Your task to perform on an android device: turn notification dots off Image 0: 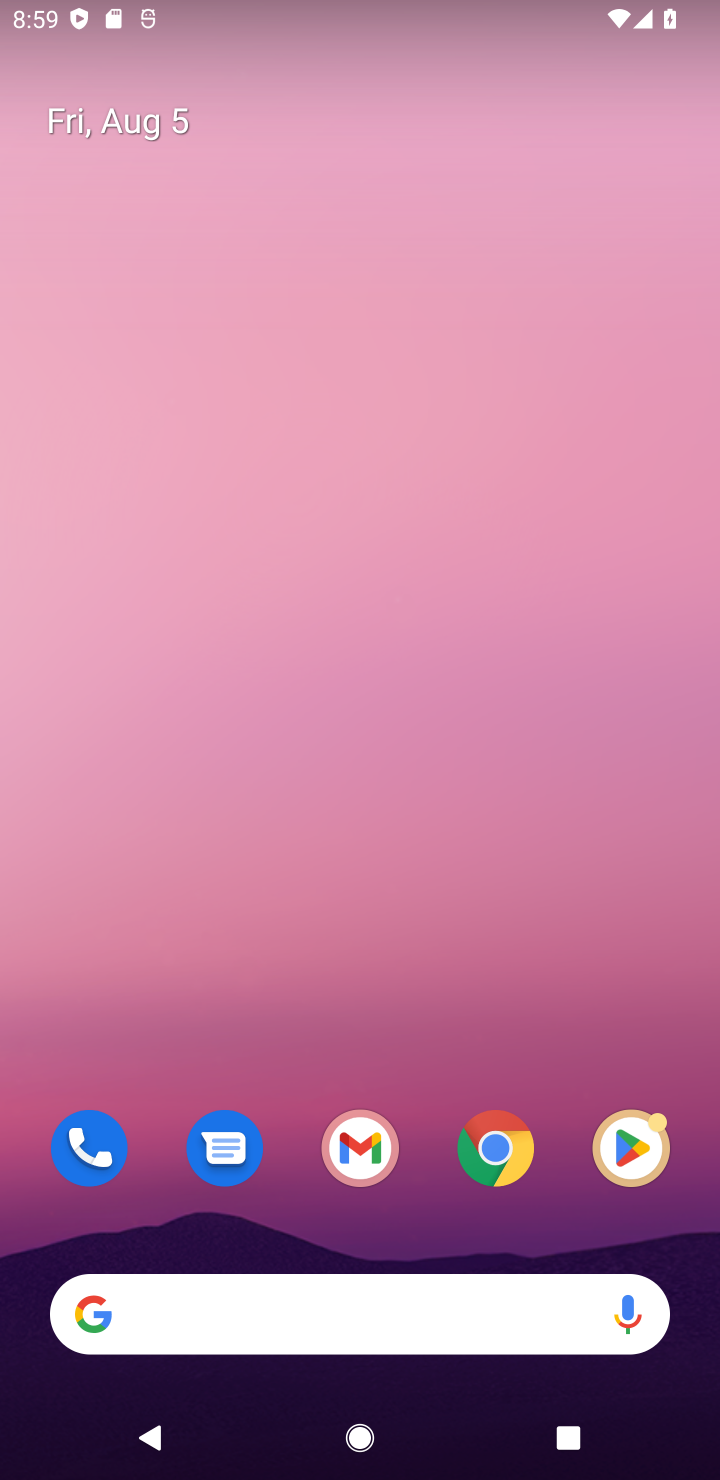
Step 0: drag from (422, 1246) to (395, 331)
Your task to perform on an android device: turn notification dots off Image 1: 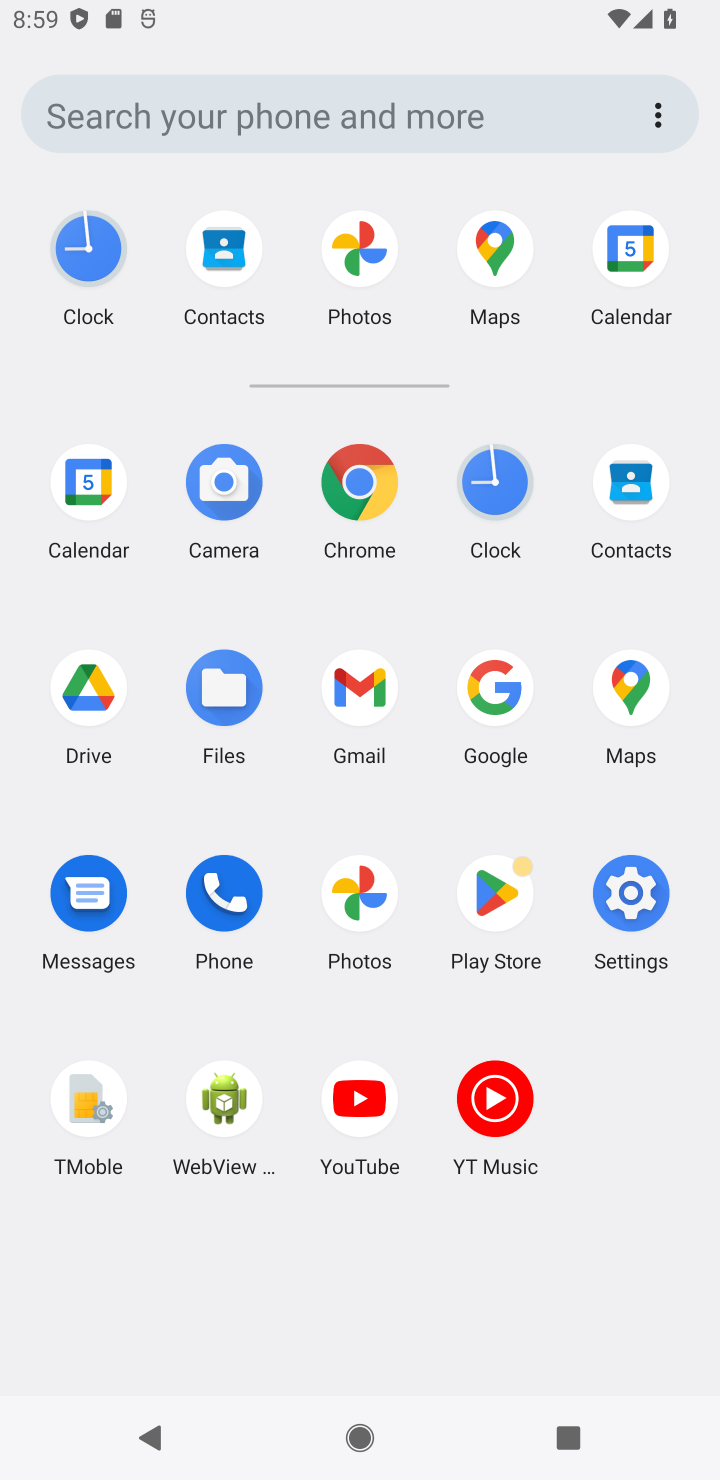
Step 1: task complete